Your task to perform on an android device: Go to battery settings Image 0: 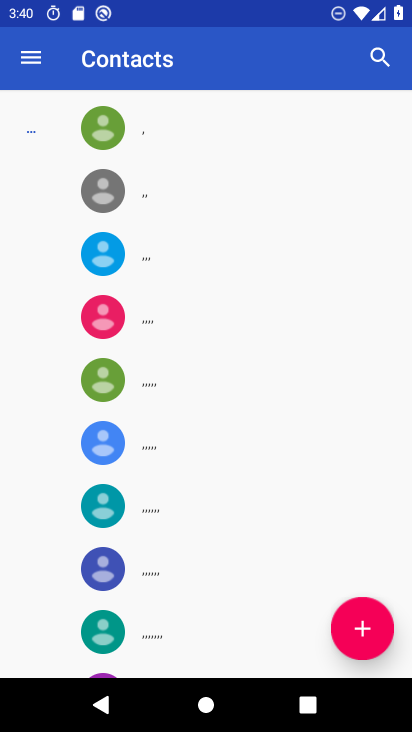
Step 0: press back button
Your task to perform on an android device: Go to battery settings Image 1: 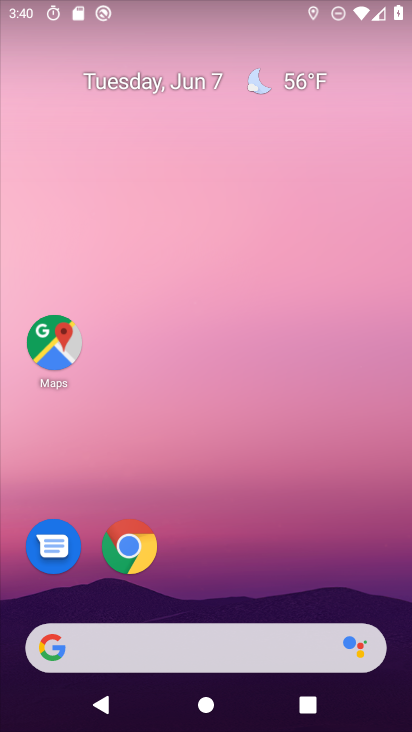
Step 1: drag from (207, 531) to (165, 46)
Your task to perform on an android device: Go to battery settings Image 2: 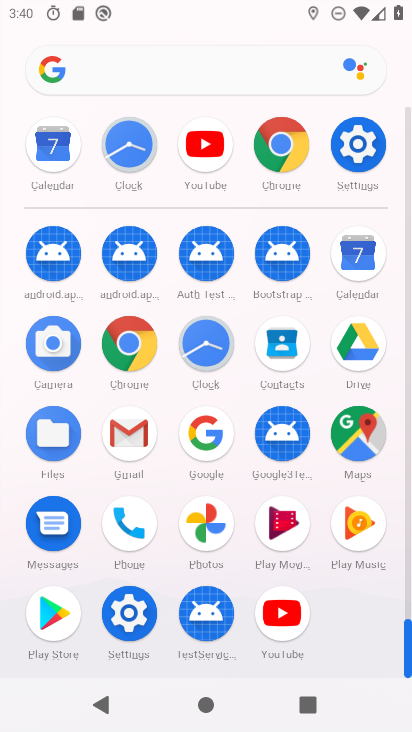
Step 2: click (129, 610)
Your task to perform on an android device: Go to battery settings Image 3: 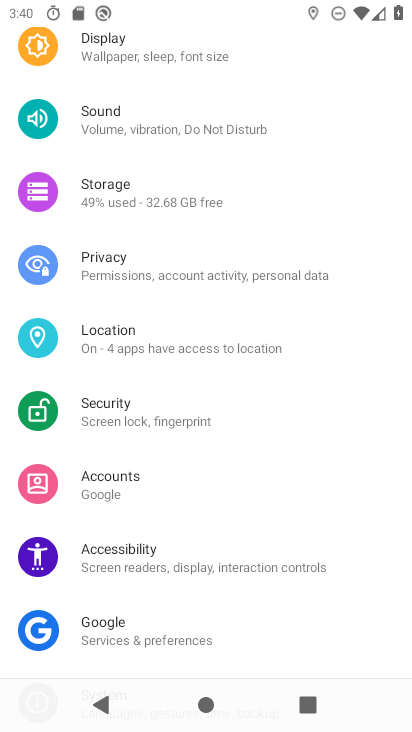
Step 3: drag from (234, 443) to (238, 81)
Your task to perform on an android device: Go to battery settings Image 4: 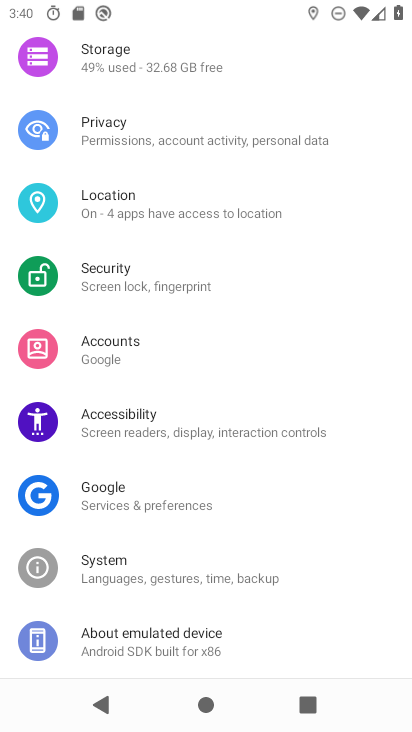
Step 4: drag from (238, 196) to (238, 553)
Your task to perform on an android device: Go to battery settings Image 5: 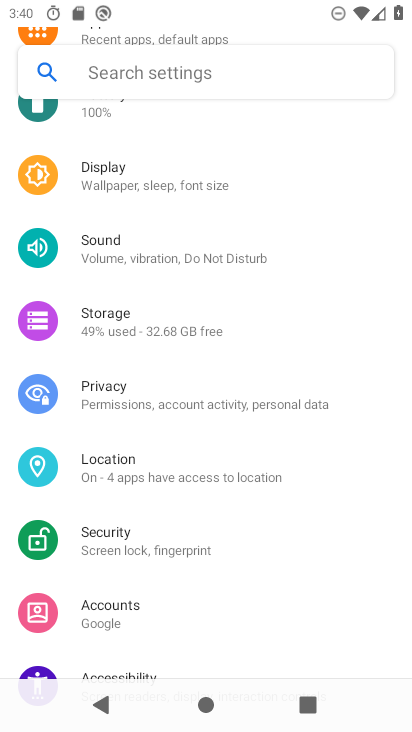
Step 5: drag from (233, 250) to (230, 581)
Your task to perform on an android device: Go to battery settings Image 6: 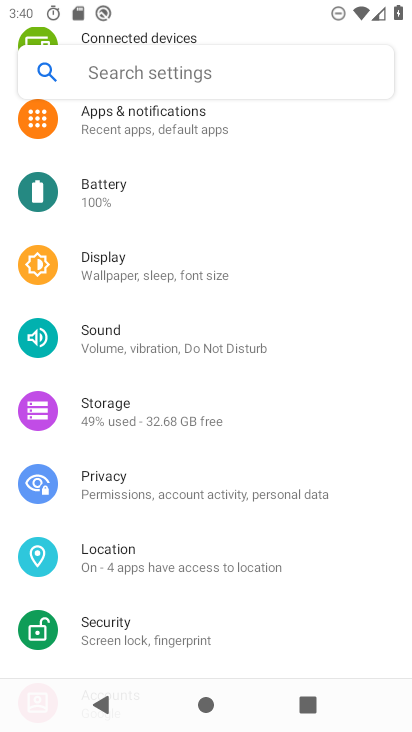
Step 6: drag from (167, 200) to (191, 550)
Your task to perform on an android device: Go to battery settings Image 7: 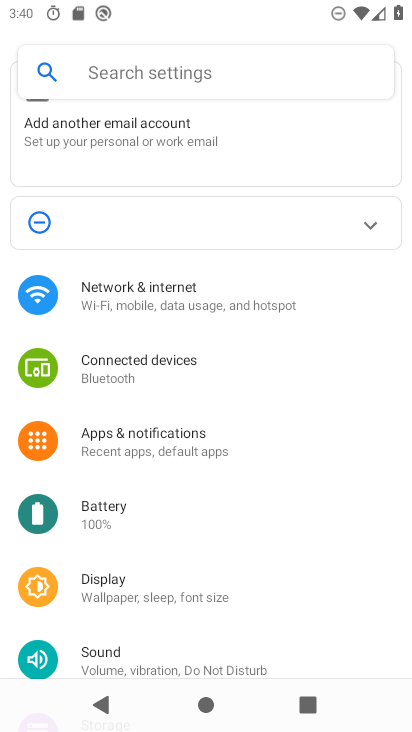
Step 7: drag from (252, 534) to (292, 214)
Your task to perform on an android device: Go to battery settings Image 8: 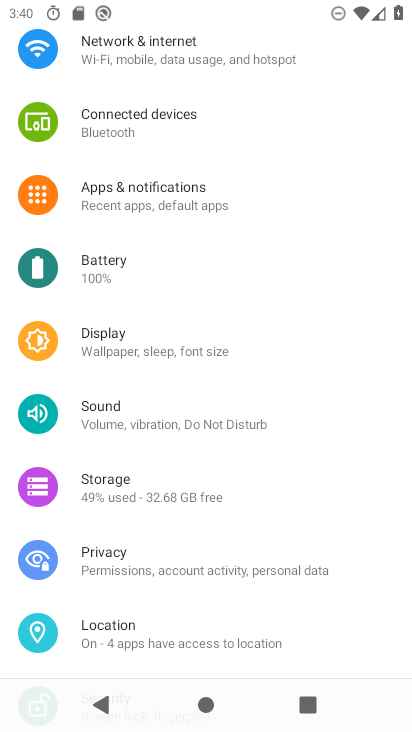
Step 8: drag from (247, 587) to (304, 184)
Your task to perform on an android device: Go to battery settings Image 9: 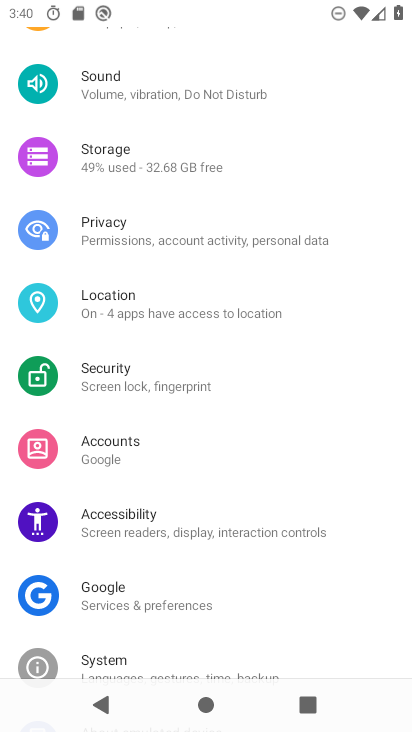
Step 9: drag from (268, 509) to (269, 70)
Your task to perform on an android device: Go to battery settings Image 10: 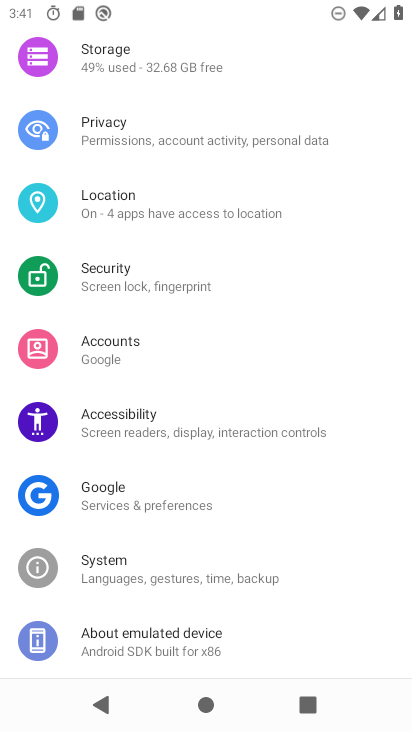
Step 10: drag from (256, 551) to (261, 214)
Your task to perform on an android device: Go to battery settings Image 11: 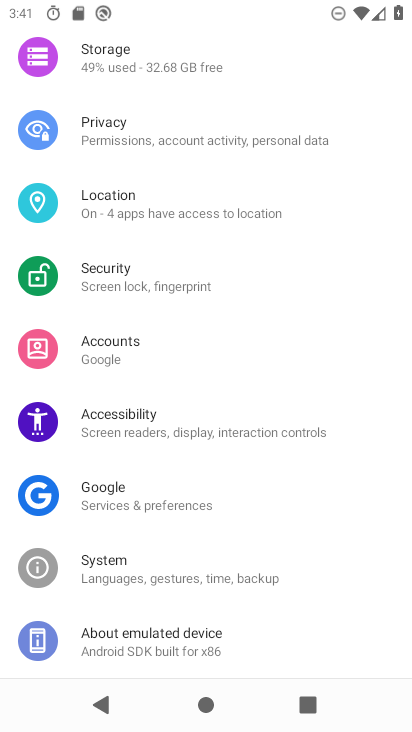
Step 11: drag from (261, 212) to (275, 586)
Your task to perform on an android device: Go to battery settings Image 12: 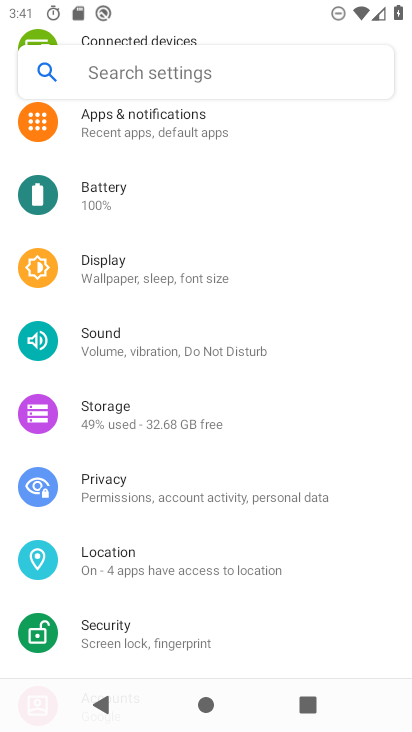
Step 12: drag from (266, 208) to (266, 561)
Your task to perform on an android device: Go to battery settings Image 13: 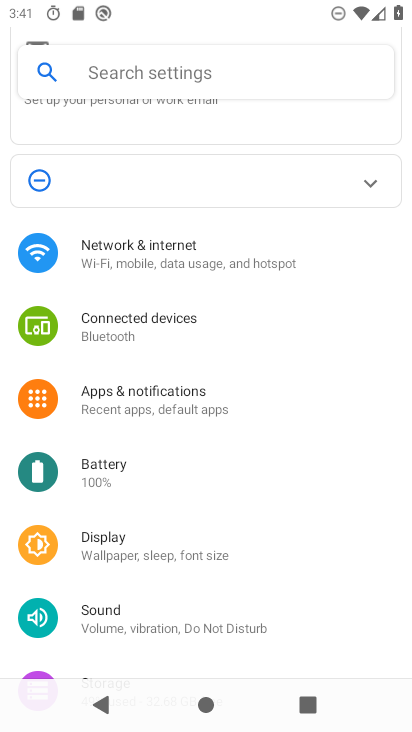
Step 13: click (118, 460)
Your task to perform on an android device: Go to battery settings Image 14: 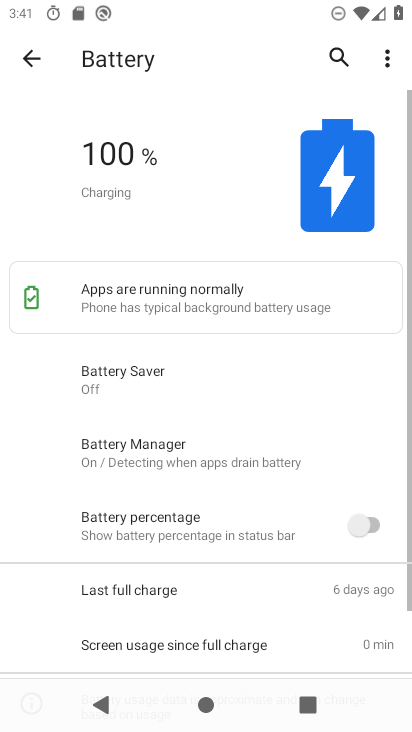
Step 14: task complete